Your task to perform on an android device: turn off smart reply in the gmail app Image 0: 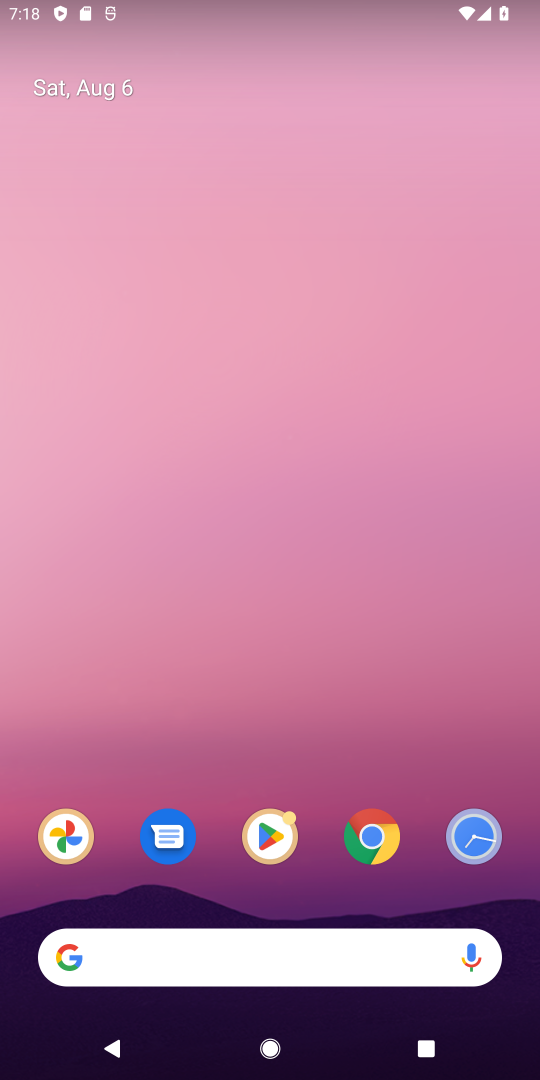
Step 0: drag from (276, 928) to (237, 237)
Your task to perform on an android device: turn off smart reply in the gmail app Image 1: 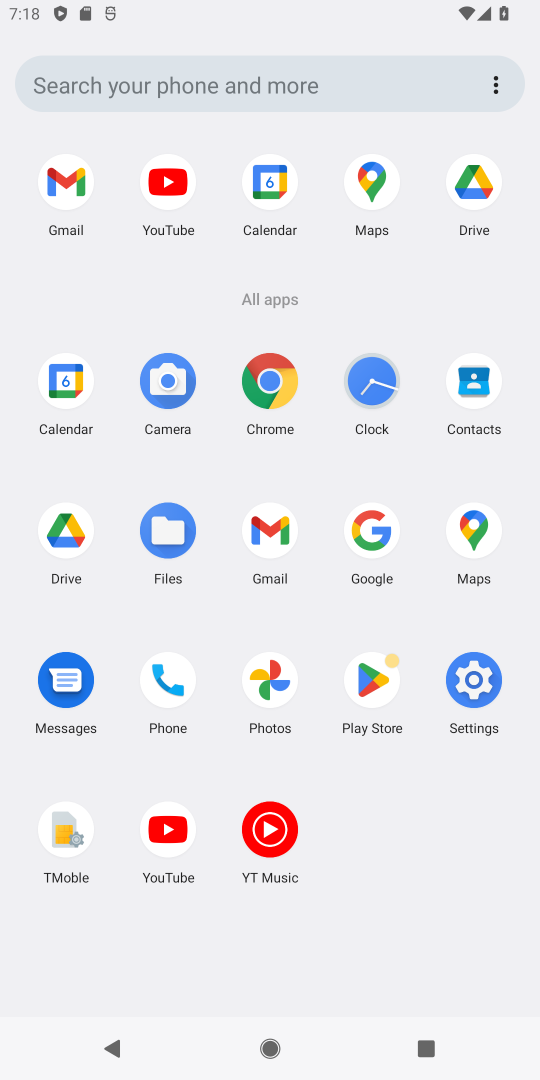
Step 1: click (274, 532)
Your task to perform on an android device: turn off smart reply in the gmail app Image 2: 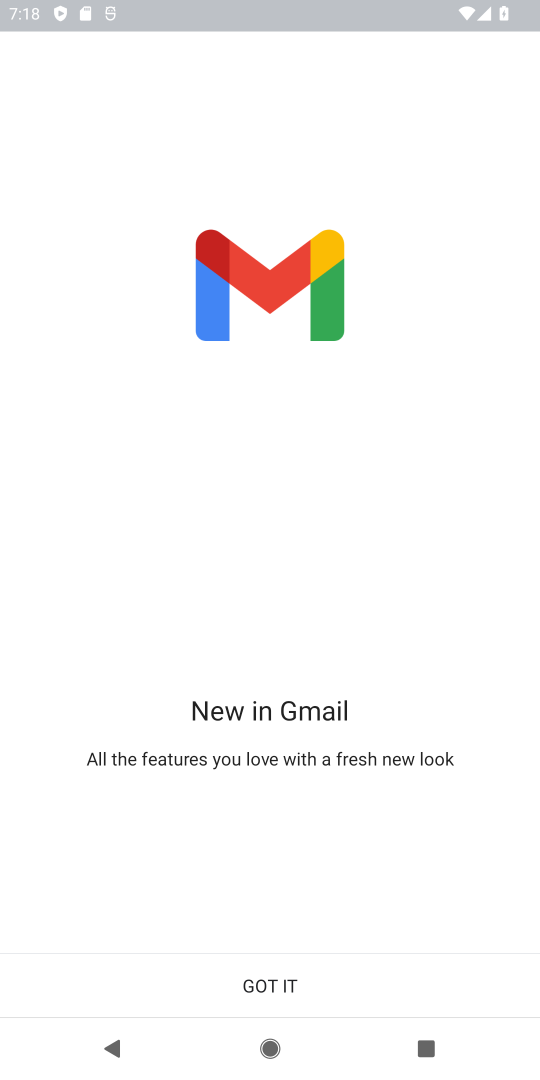
Step 2: click (273, 999)
Your task to perform on an android device: turn off smart reply in the gmail app Image 3: 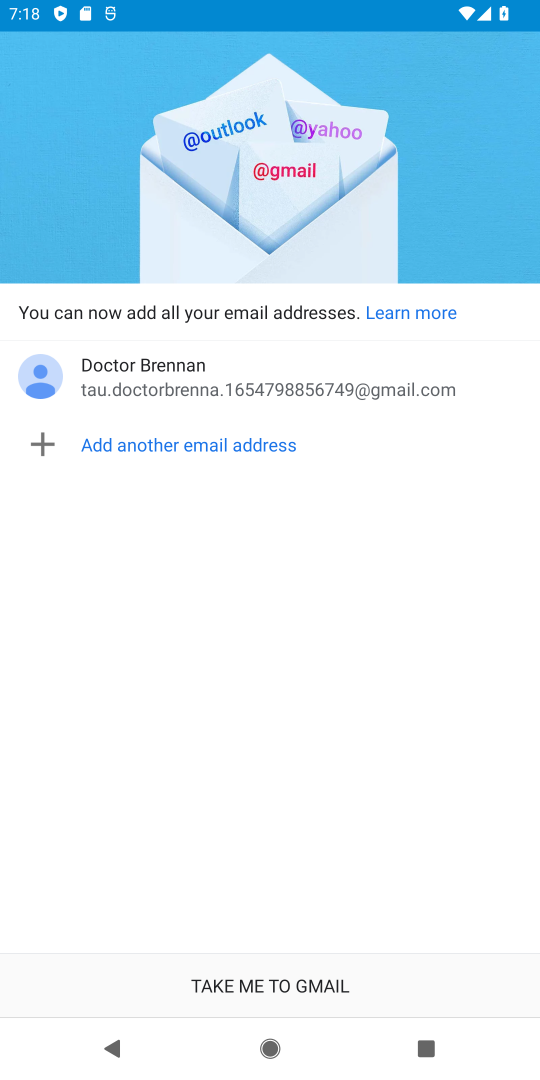
Step 3: click (335, 989)
Your task to perform on an android device: turn off smart reply in the gmail app Image 4: 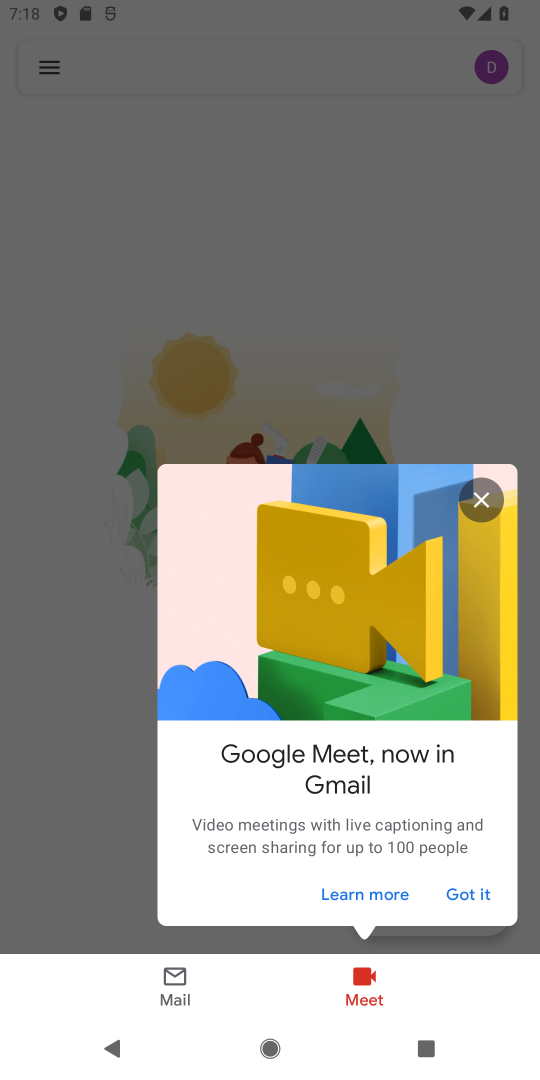
Step 4: click (455, 900)
Your task to perform on an android device: turn off smart reply in the gmail app Image 5: 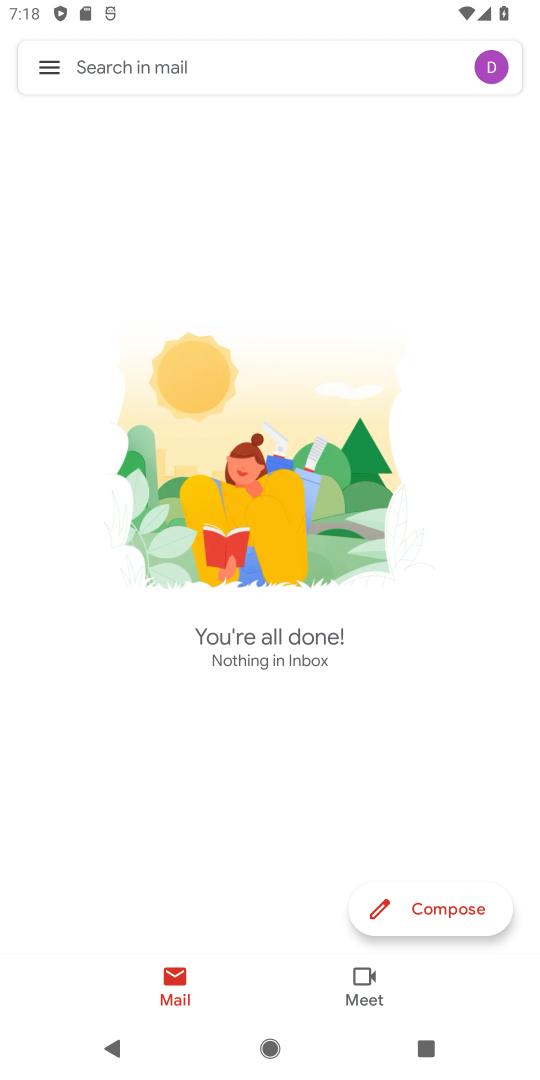
Step 5: click (61, 62)
Your task to perform on an android device: turn off smart reply in the gmail app Image 6: 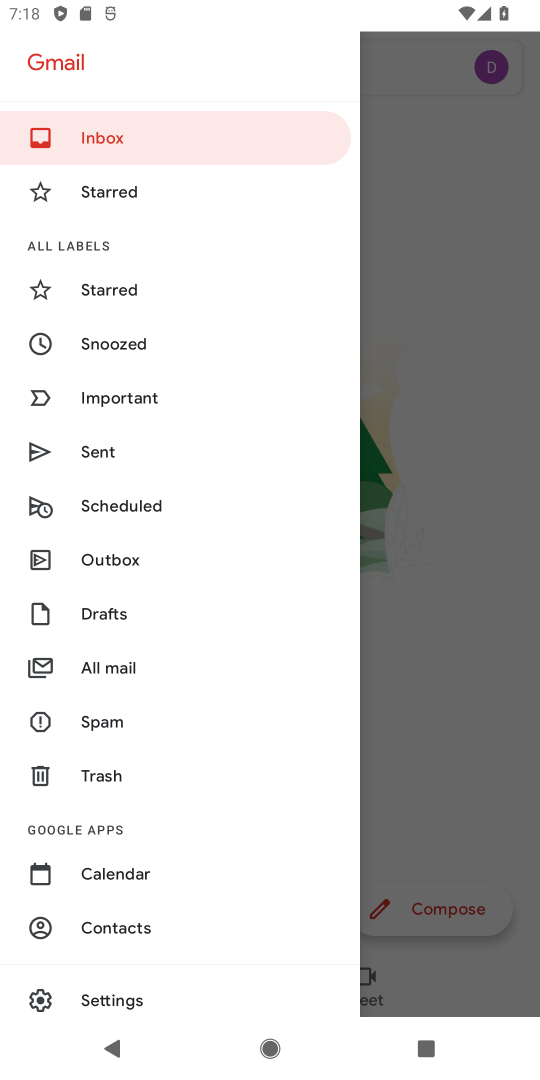
Step 6: click (111, 996)
Your task to perform on an android device: turn off smart reply in the gmail app Image 7: 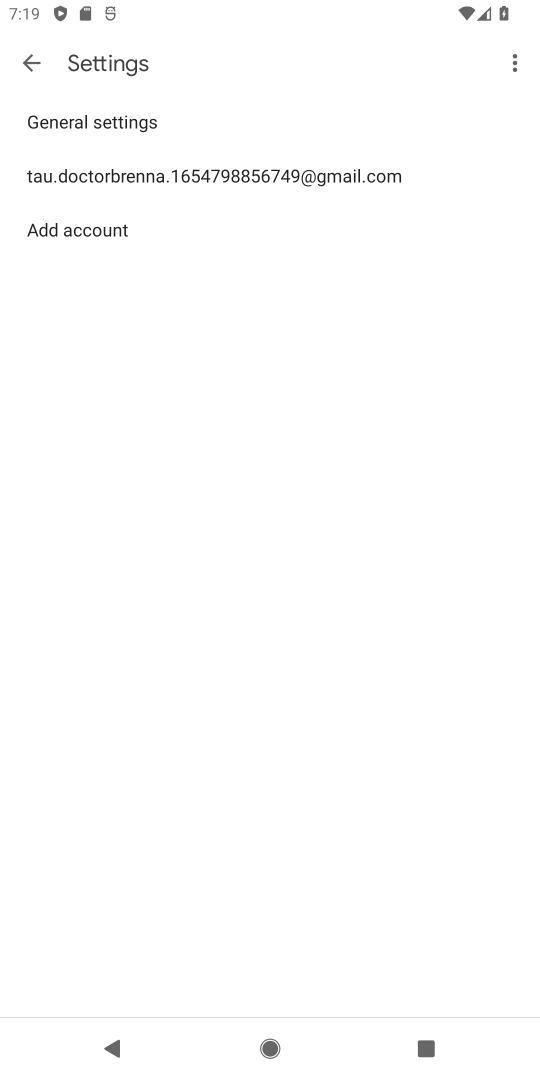
Step 7: click (88, 174)
Your task to perform on an android device: turn off smart reply in the gmail app Image 8: 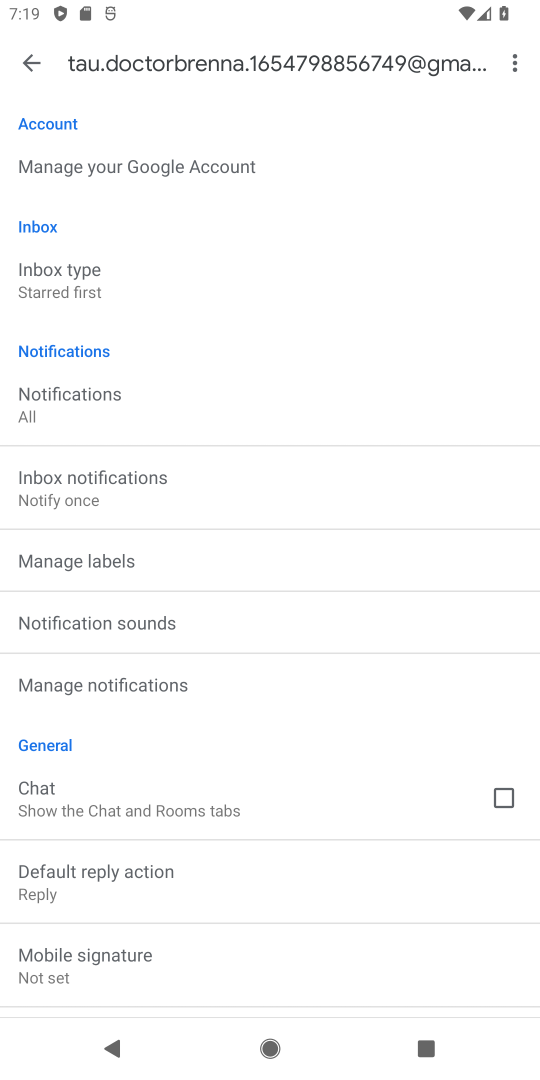
Step 8: drag from (70, 970) to (82, 442)
Your task to perform on an android device: turn off smart reply in the gmail app Image 9: 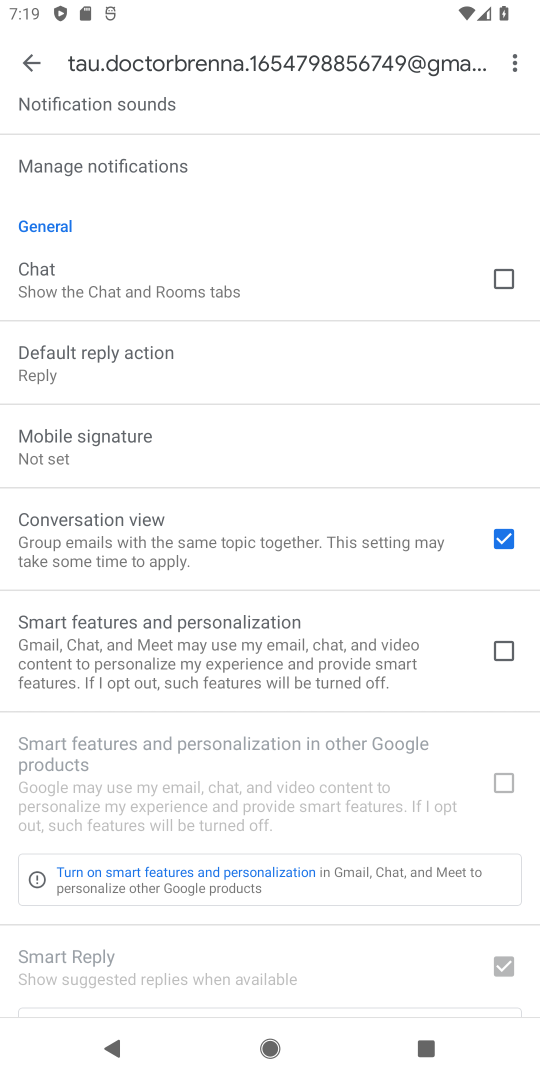
Step 9: click (503, 969)
Your task to perform on an android device: turn off smart reply in the gmail app Image 10: 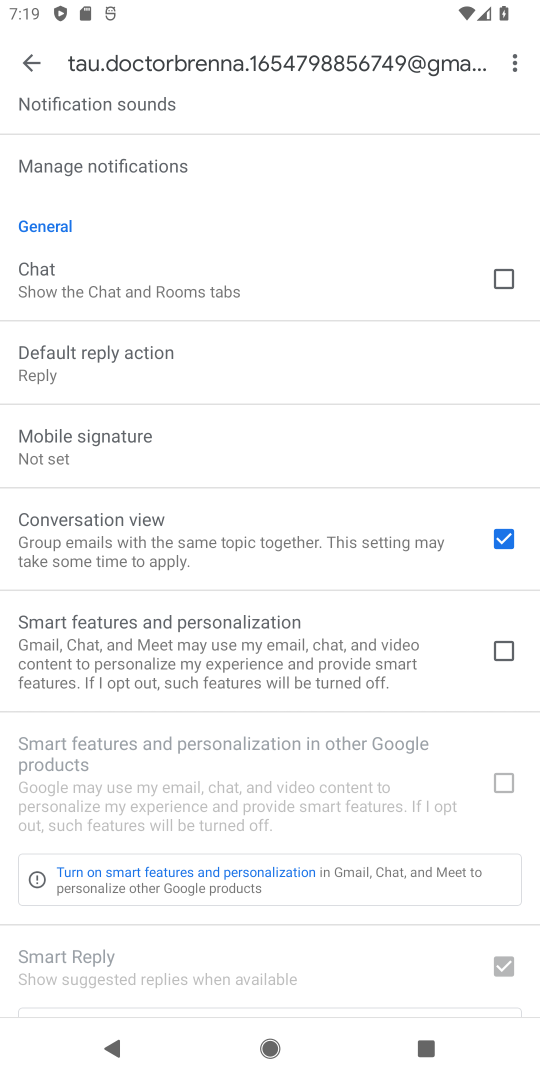
Step 10: task complete